Your task to perform on an android device: open app "Google Docs" (install if not already installed) Image 0: 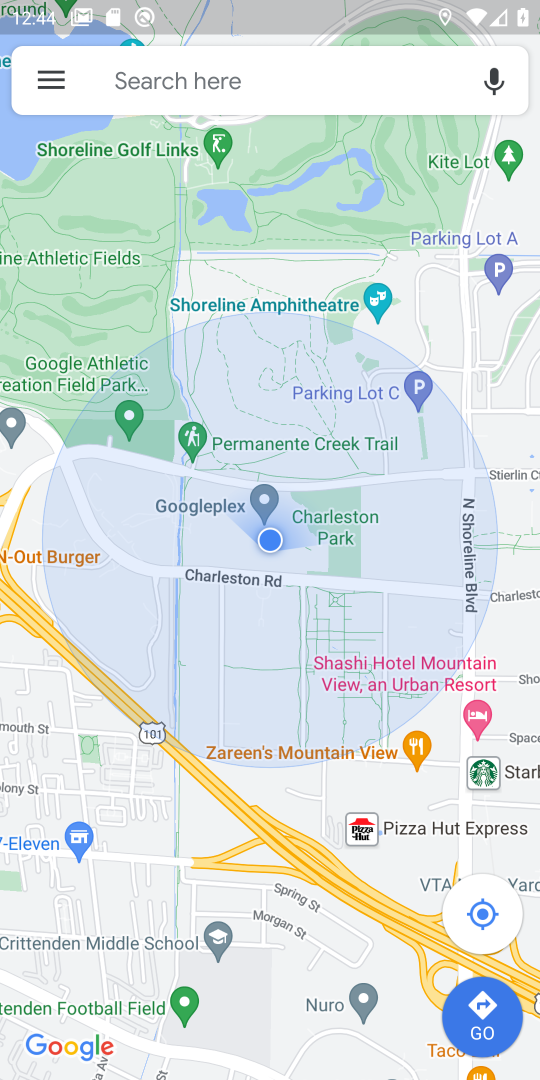
Step 0: press home button
Your task to perform on an android device: open app "Google Docs" (install if not already installed) Image 1: 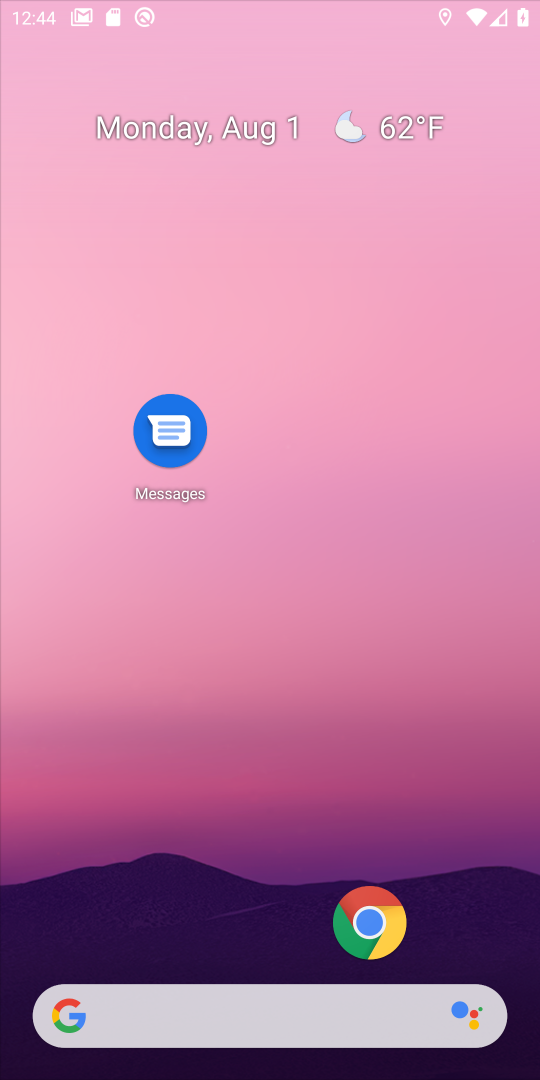
Step 1: press home button
Your task to perform on an android device: open app "Google Docs" (install if not already installed) Image 2: 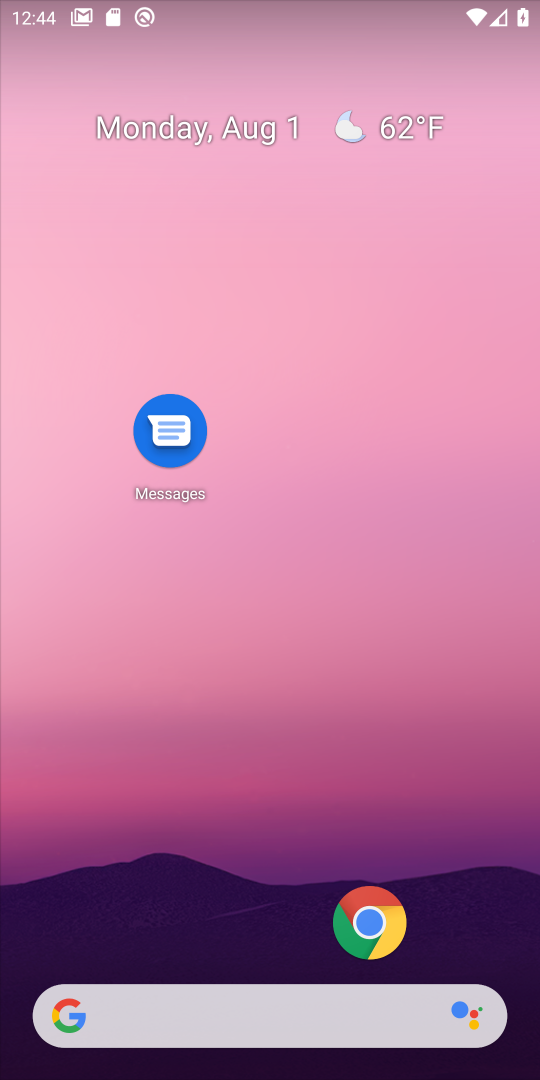
Step 2: drag from (249, 827) to (300, 175)
Your task to perform on an android device: open app "Google Docs" (install if not already installed) Image 3: 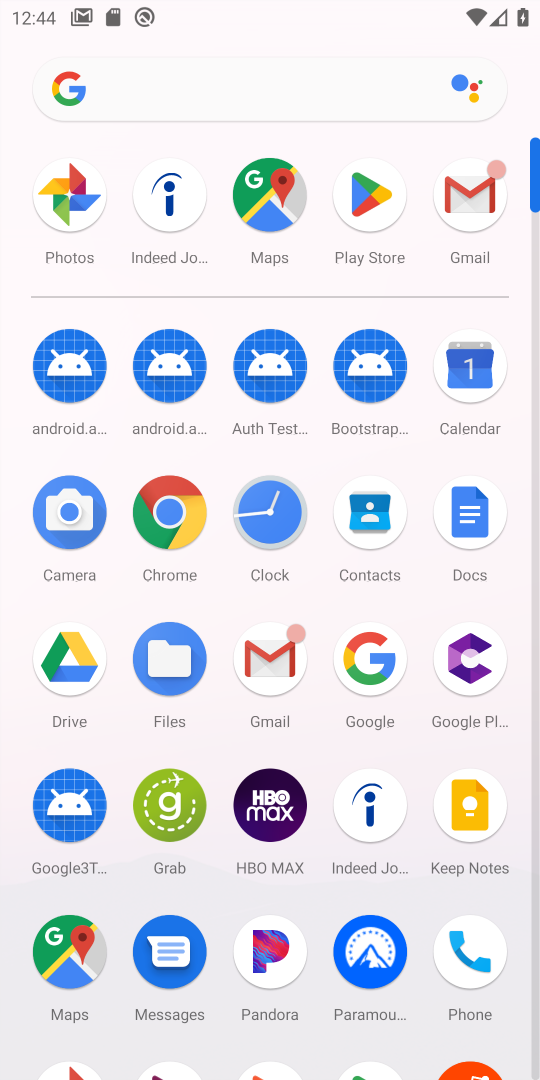
Step 3: click (365, 240)
Your task to perform on an android device: open app "Google Docs" (install if not already installed) Image 4: 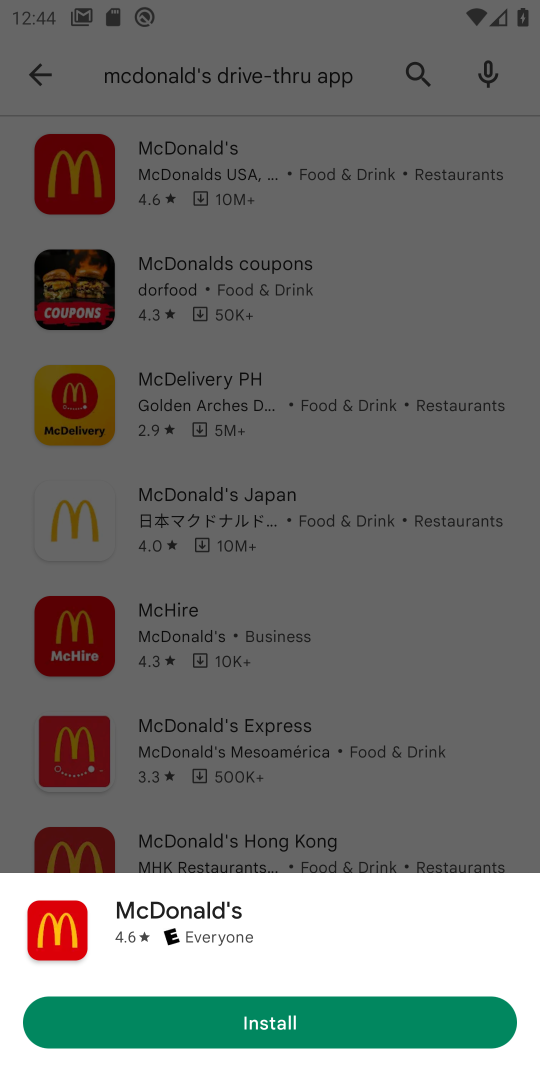
Step 4: click (421, 76)
Your task to perform on an android device: open app "Google Docs" (install if not already installed) Image 5: 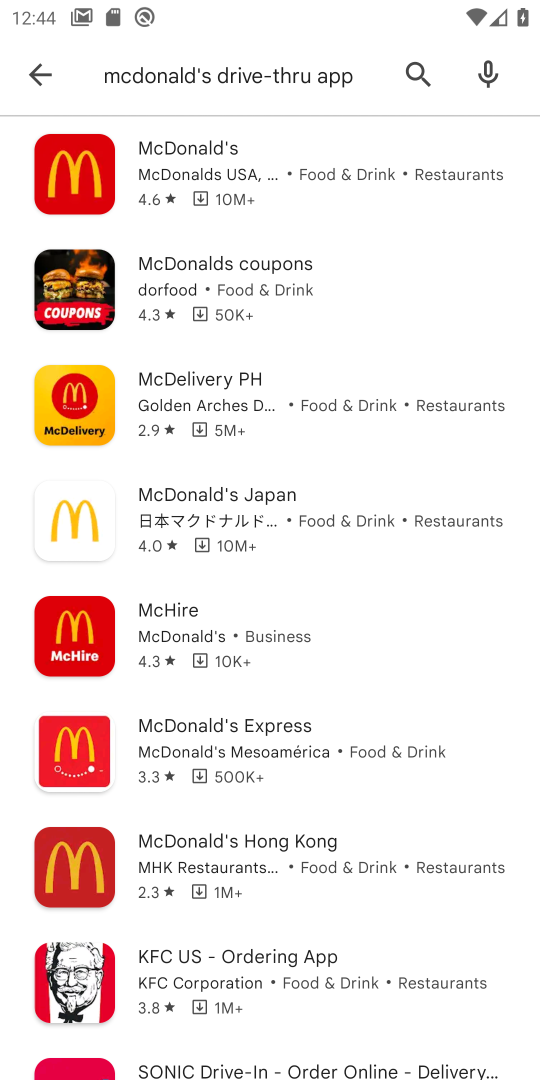
Step 5: click (421, 76)
Your task to perform on an android device: open app "Google Docs" (install if not already installed) Image 6: 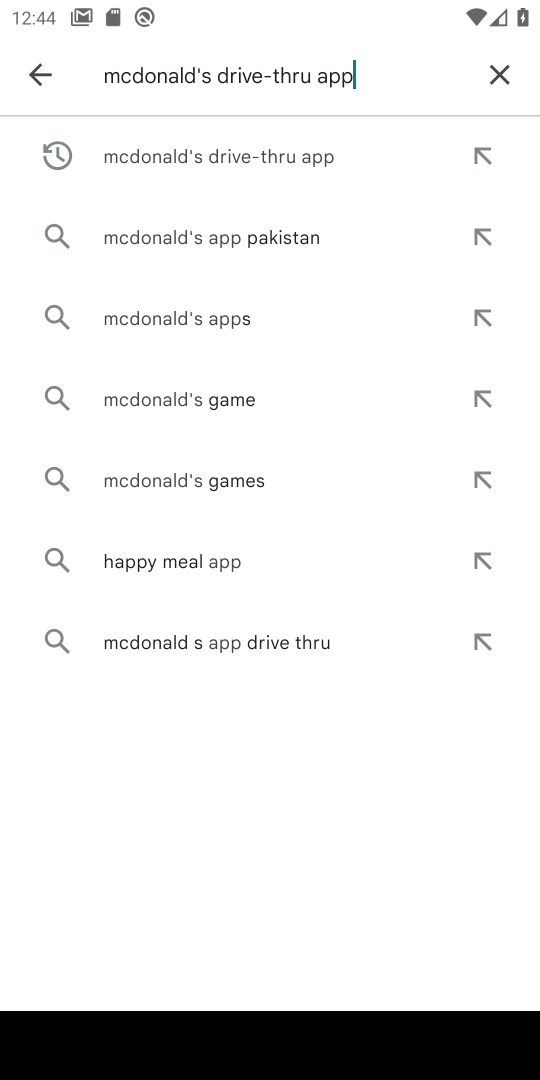
Step 6: click (497, 79)
Your task to perform on an android device: open app "Google Docs" (install if not already installed) Image 7: 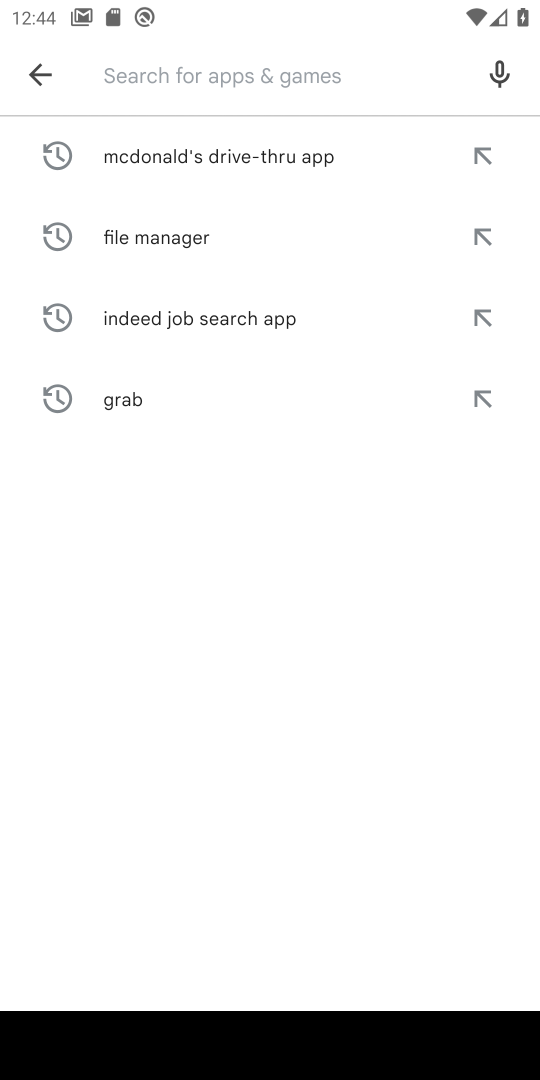
Step 7: type "Google Docs"
Your task to perform on an android device: open app "Google Docs" (install if not already installed) Image 8: 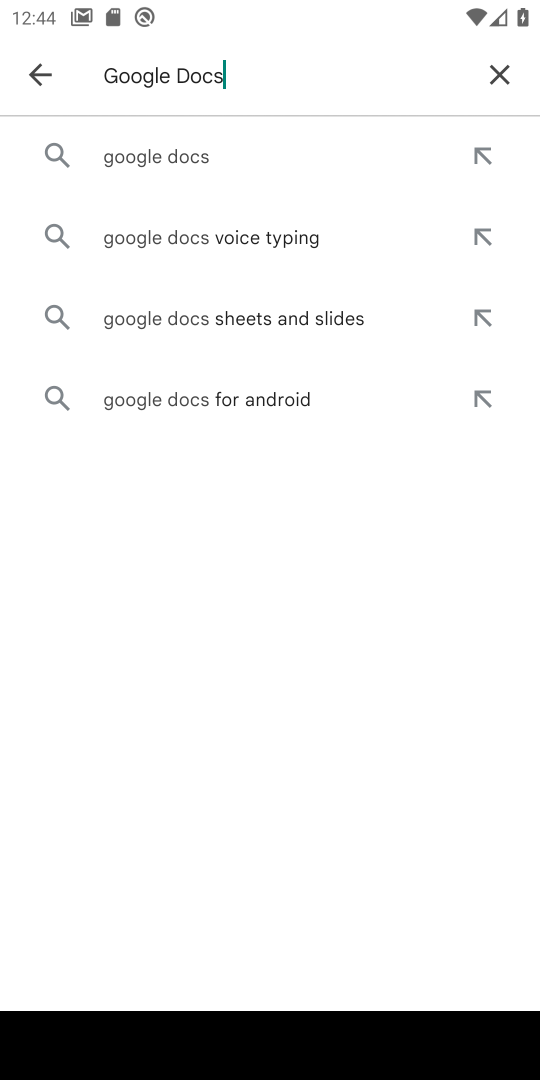
Step 8: type ""
Your task to perform on an android device: open app "Google Docs" (install if not already installed) Image 9: 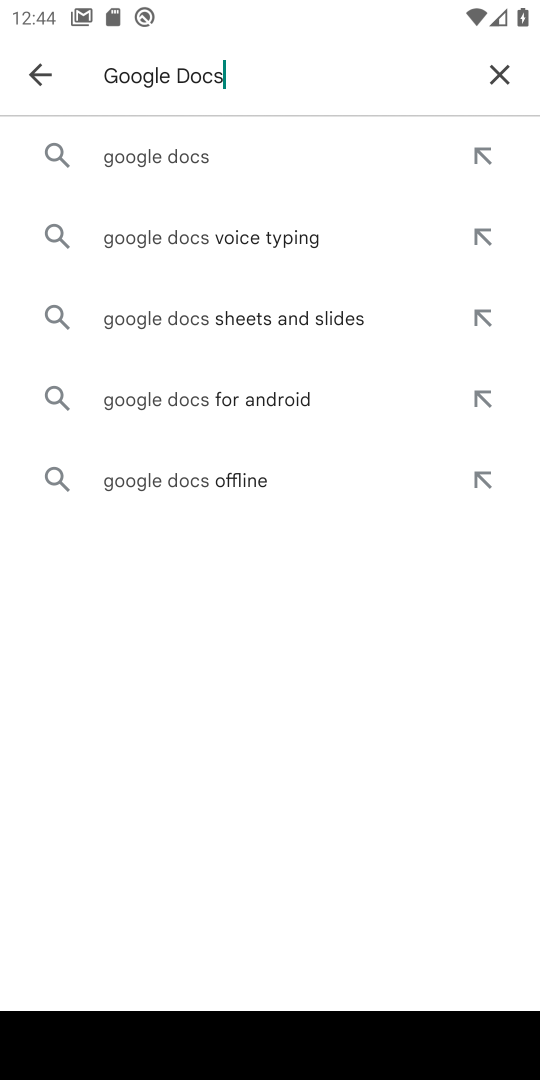
Step 9: click (240, 169)
Your task to perform on an android device: open app "Google Docs" (install if not already installed) Image 10: 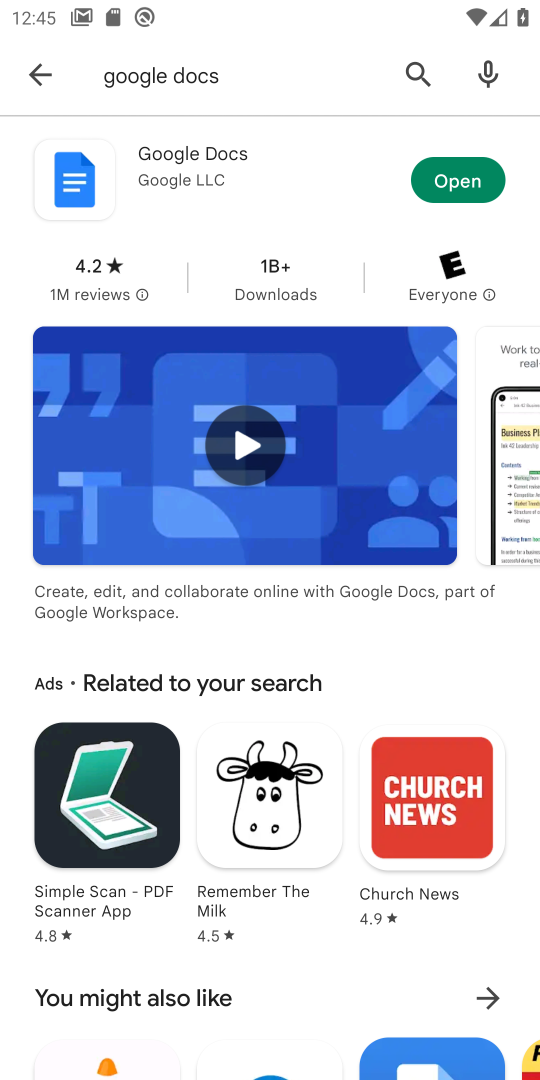
Step 10: click (450, 191)
Your task to perform on an android device: open app "Google Docs" (install if not already installed) Image 11: 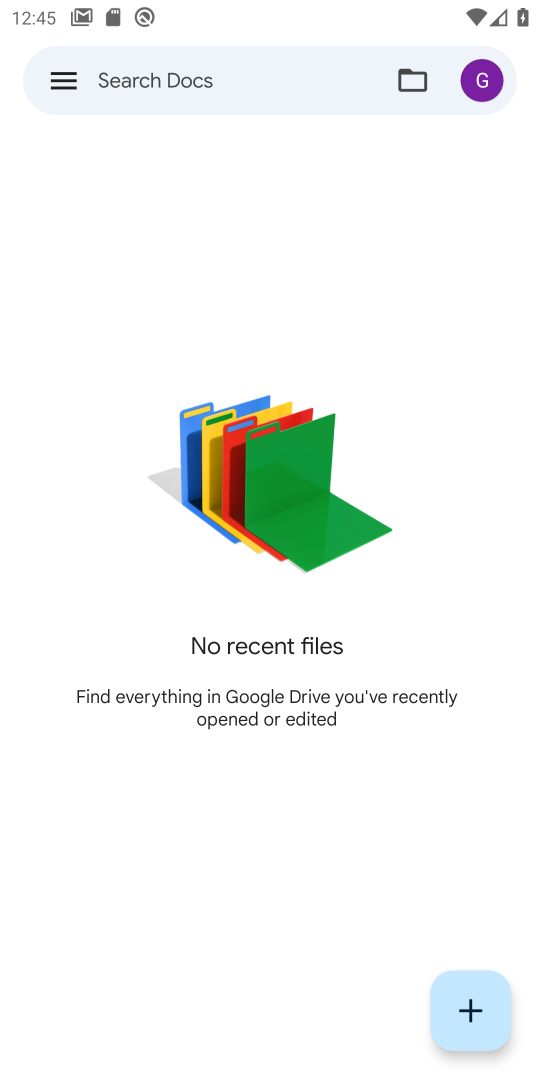
Step 11: task complete